Your task to perform on an android device: Open the calendar app, open the side menu, and click the "Day" option Image 0: 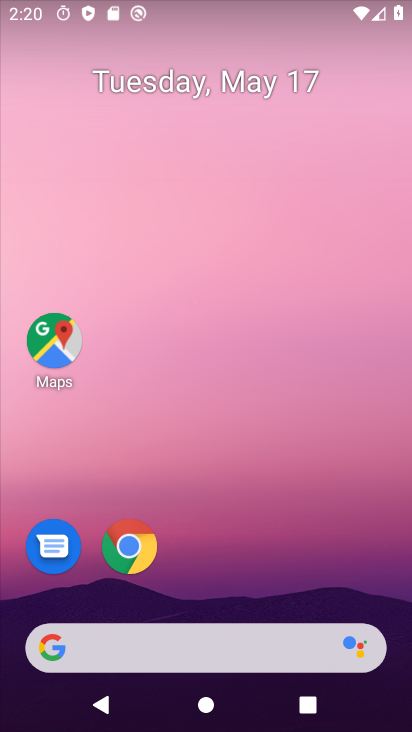
Step 0: drag from (289, 399) to (341, 100)
Your task to perform on an android device: Open the calendar app, open the side menu, and click the "Day" option Image 1: 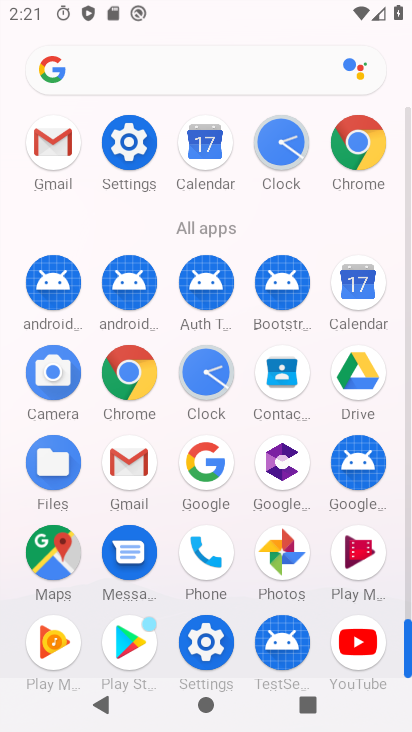
Step 1: click (362, 282)
Your task to perform on an android device: Open the calendar app, open the side menu, and click the "Day" option Image 2: 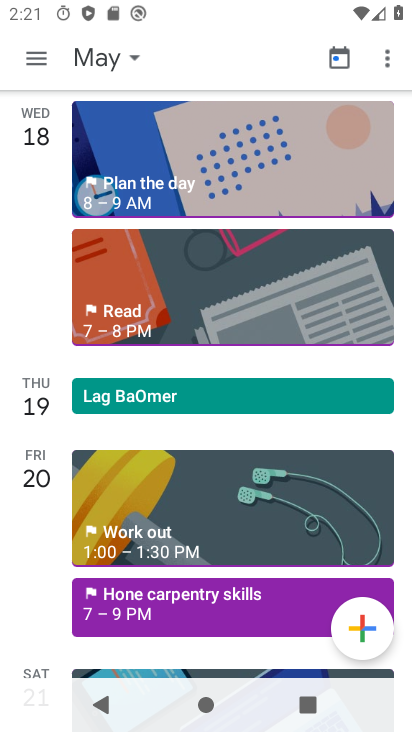
Step 2: click (54, 57)
Your task to perform on an android device: Open the calendar app, open the side menu, and click the "Day" option Image 3: 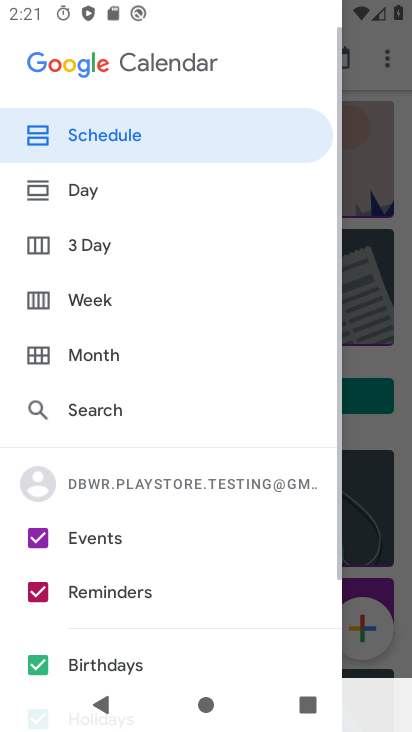
Step 3: click (130, 188)
Your task to perform on an android device: Open the calendar app, open the side menu, and click the "Day" option Image 4: 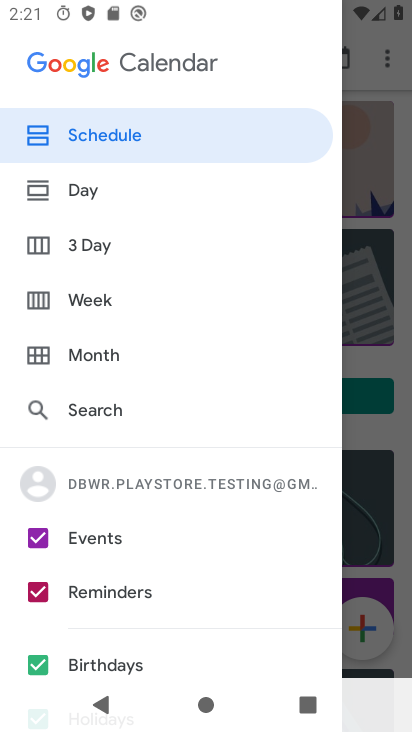
Step 4: click (135, 180)
Your task to perform on an android device: Open the calendar app, open the side menu, and click the "Day" option Image 5: 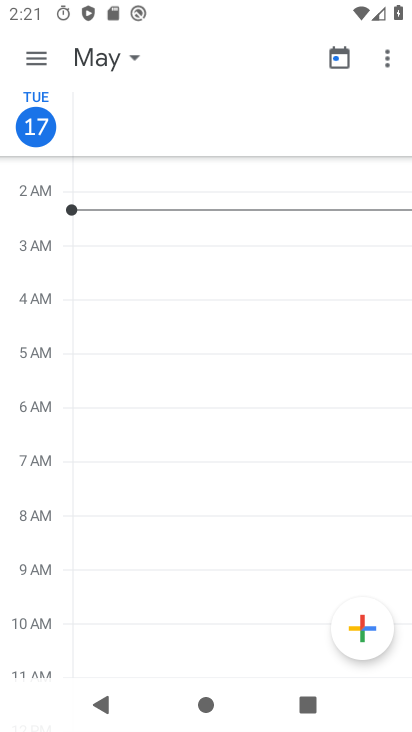
Step 5: task complete